Your task to perform on an android device: see tabs open on other devices in the chrome app Image 0: 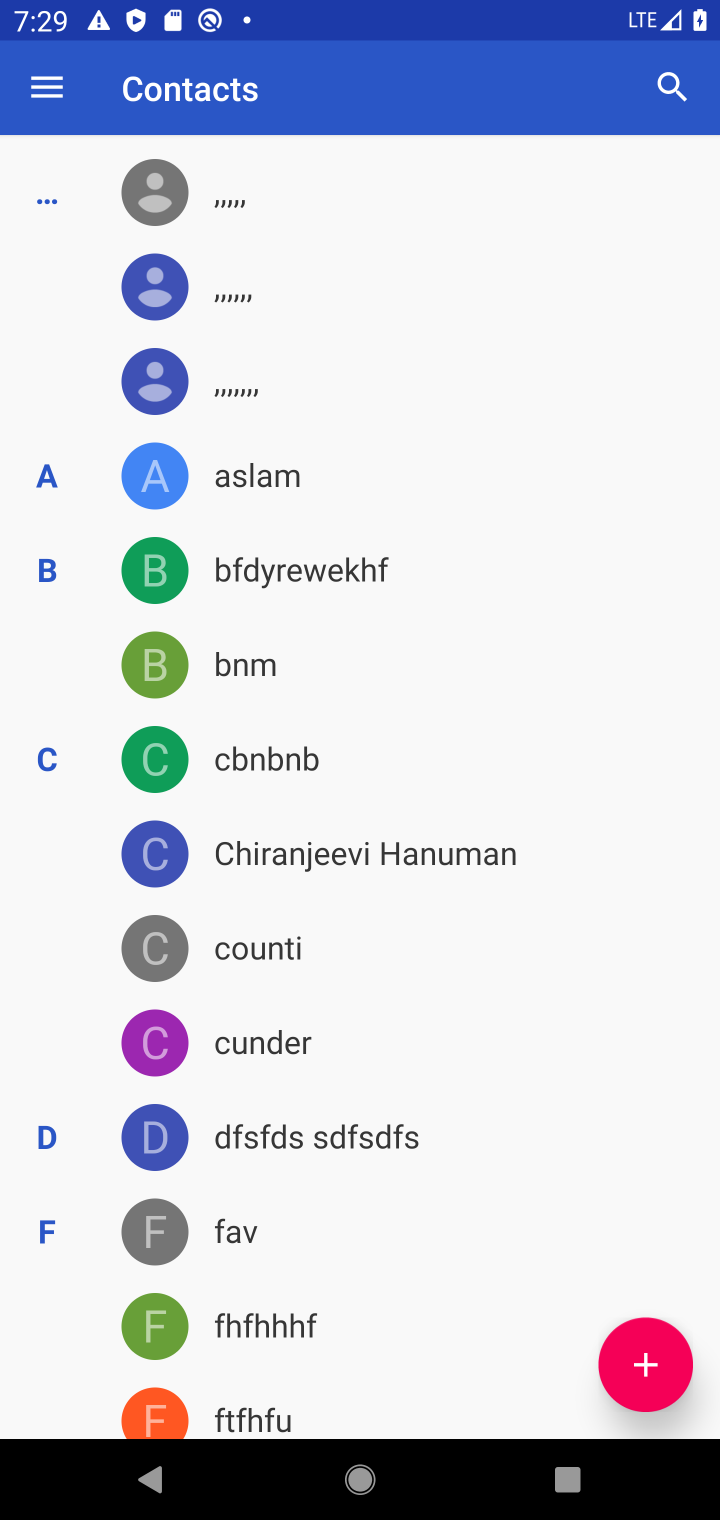
Step 0: press home button
Your task to perform on an android device: see tabs open on other devices in the chrome app Image 1: 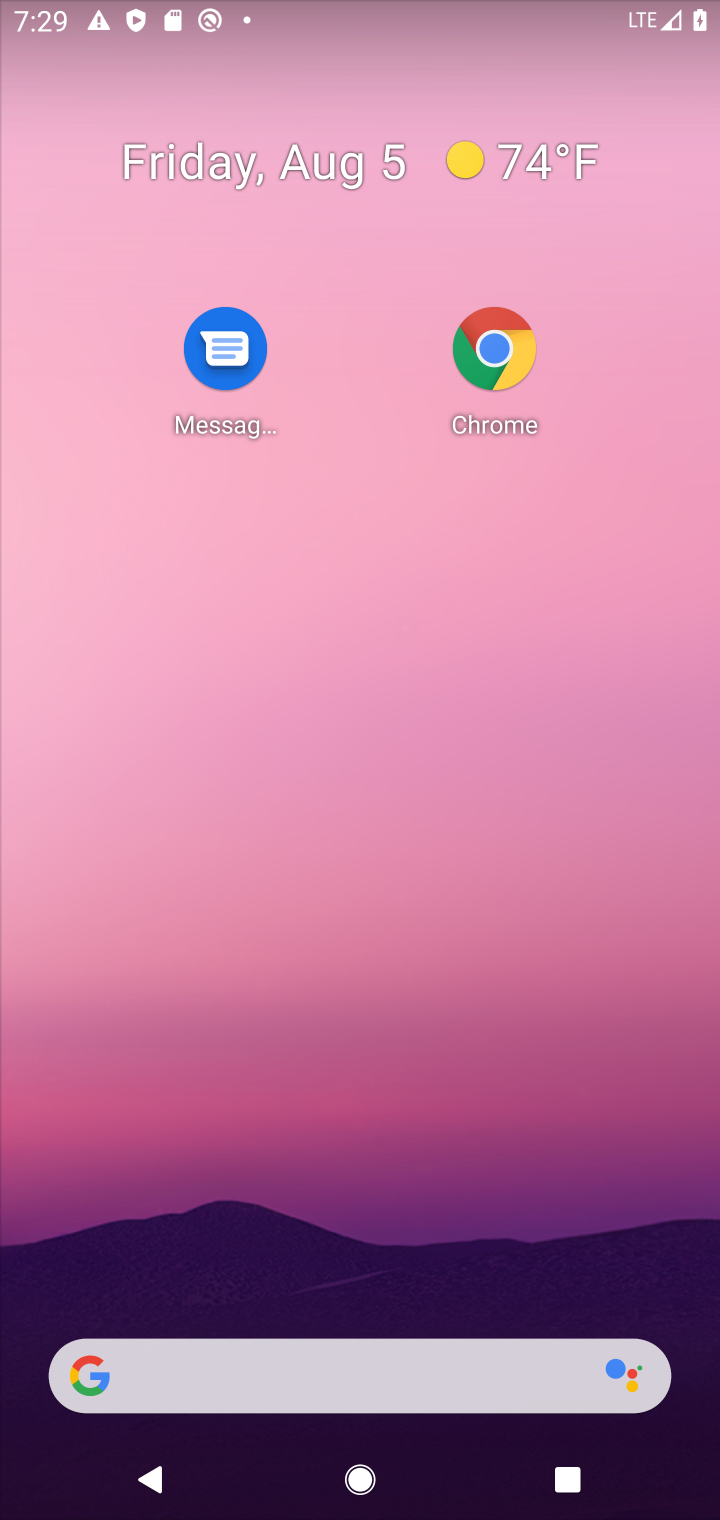
Step 1: drag from (417, 1024) to (362, 482)
Your task to perform on an android device: see tabs open on other devices in the chrome app Image 2: 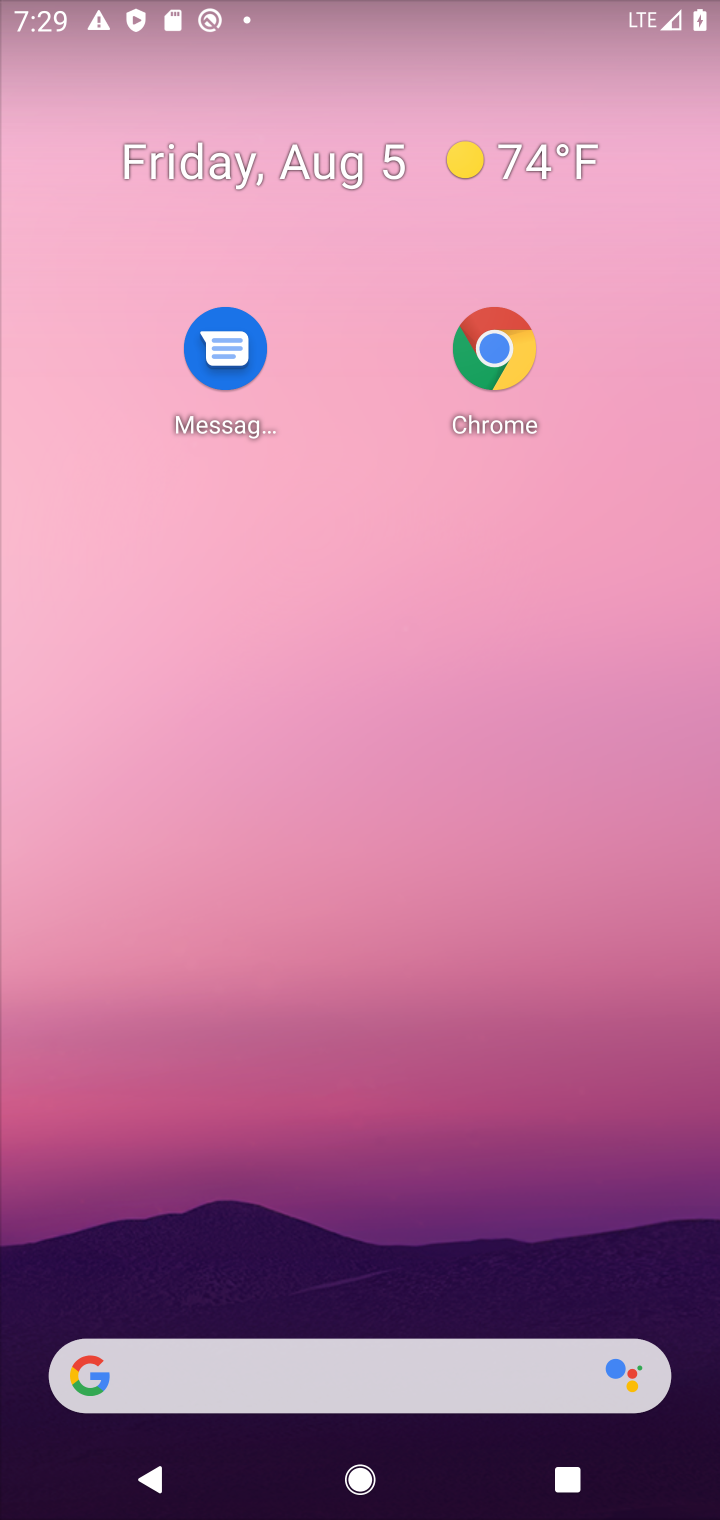
Step 2: drag from (405, 1290) to (425, 640)
Your task to perform on an android device: see tabs open on other devices in the chrome app Image 3: 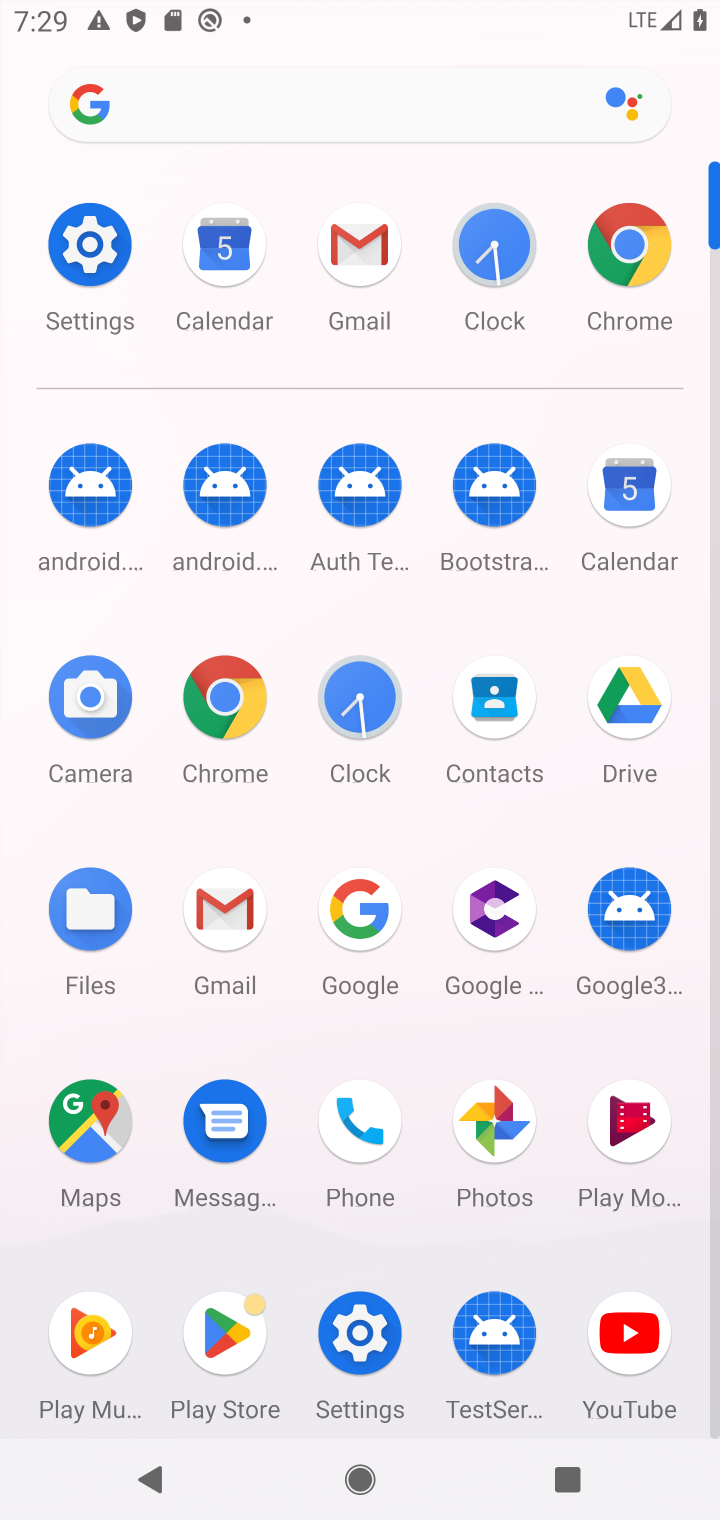
Step 3: click (631, 249)
Your task to perform on an android device: see tabs open on other devices in the chrome app Image 4: 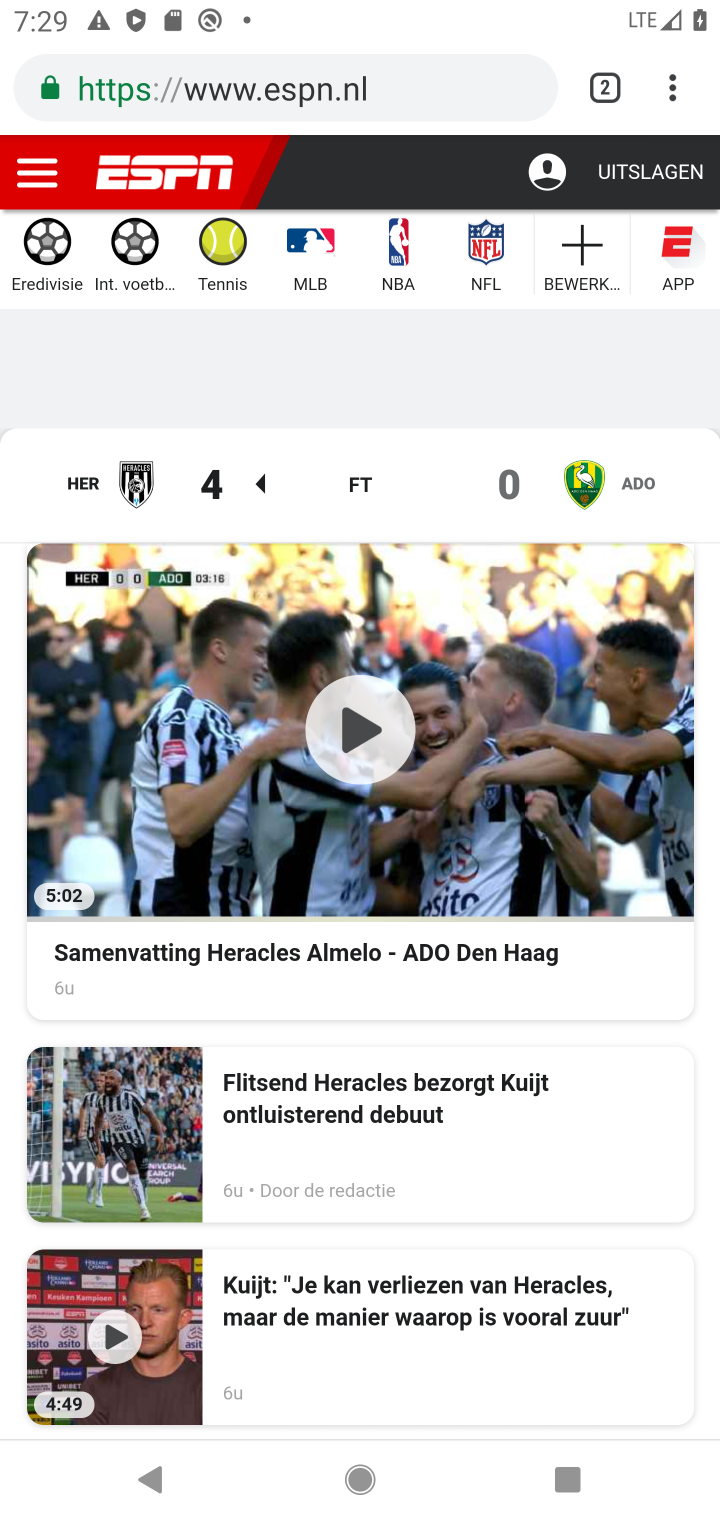
Step 4: click (597, 84)
Your task to perform on an android device: see tabs open on other devices in the chrome app Image 5: 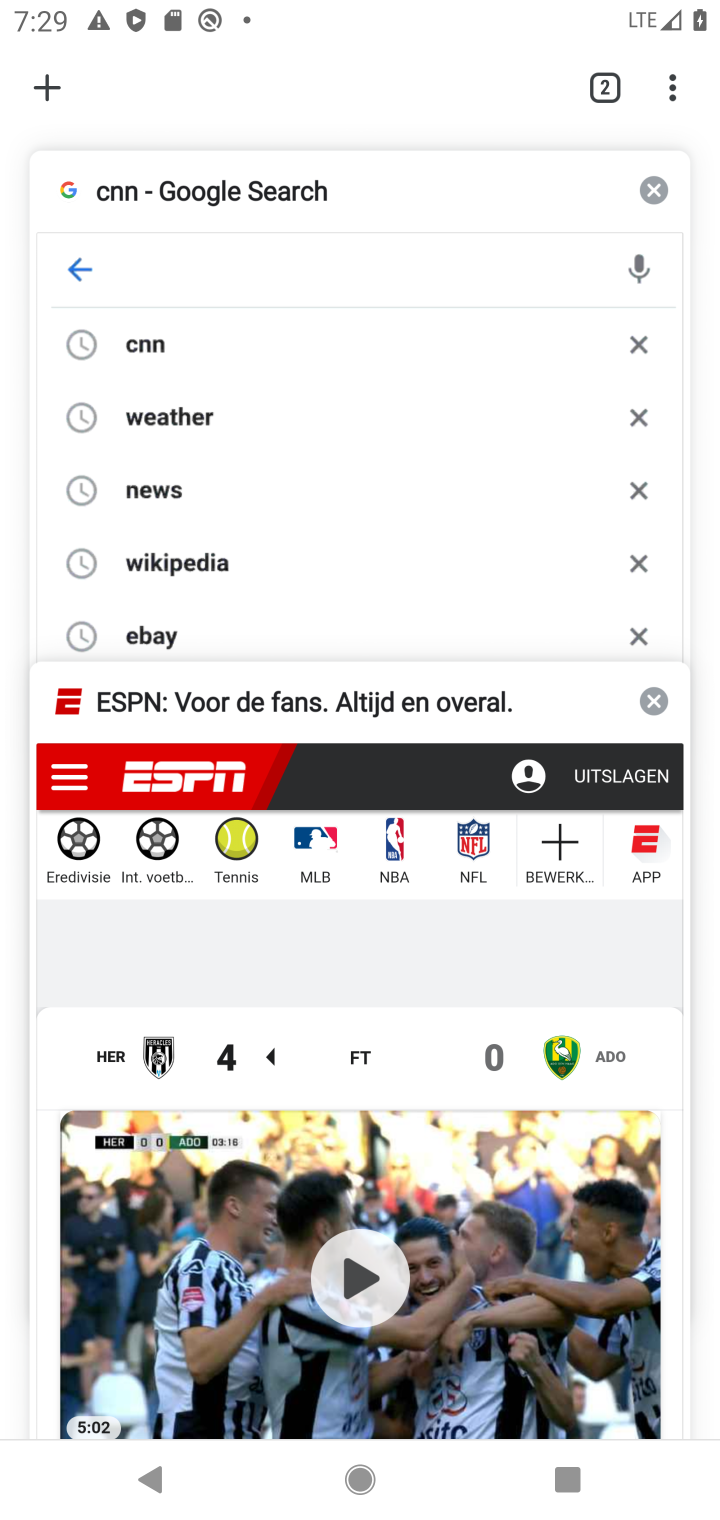
Step 5: click (32, 93)
Your task to perform on an android device: see tabs open on other devices in the chrome app Image 6: 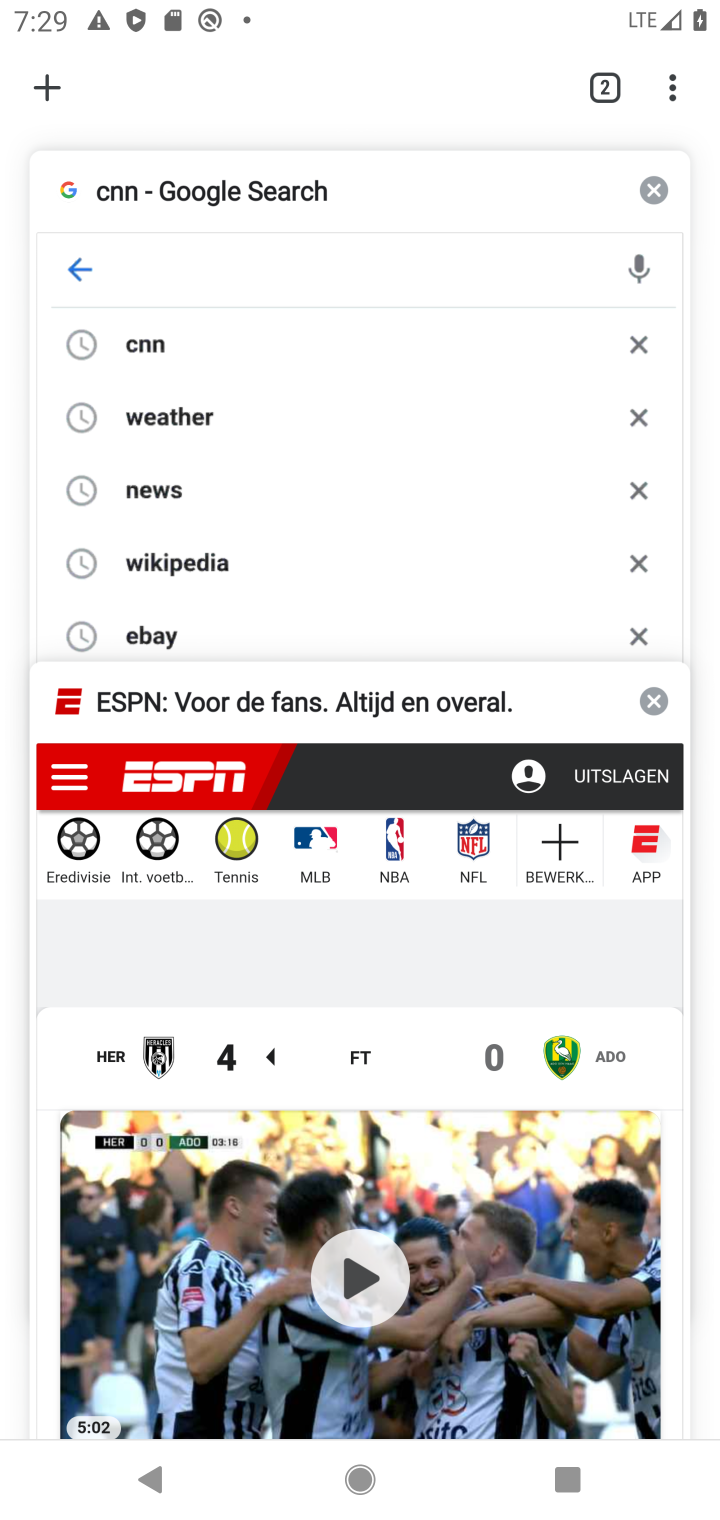
Step 6: click (60, 84)
Your task to perform on an android device: see tabs open on other devices in the chrome app Image 7: 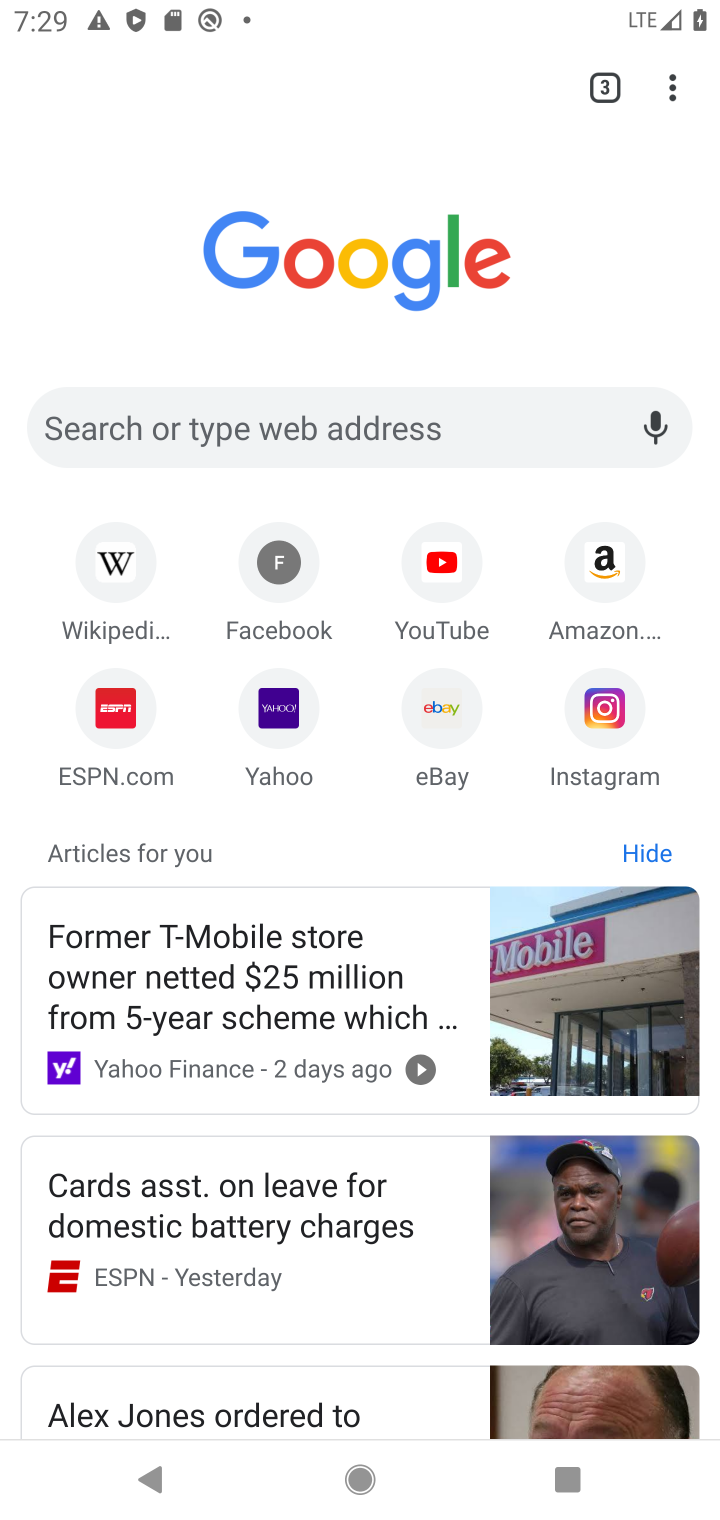
Step 7: task complete